Your task to perform on an android device: Open Wikipedia Image 0: 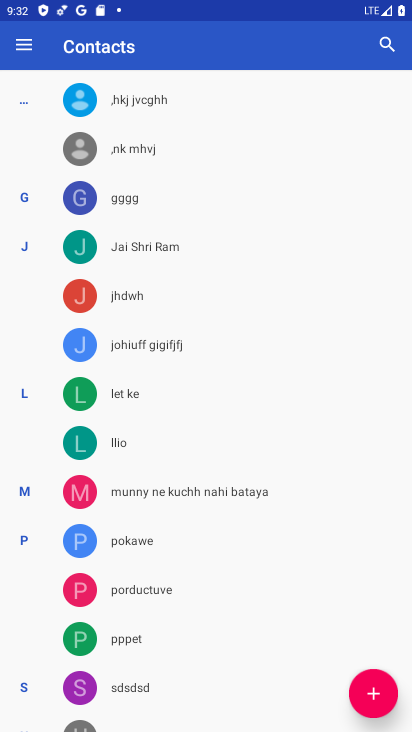
Step 0: press home button
Your task to perform on an android device: Open Wikipedia Image 1: 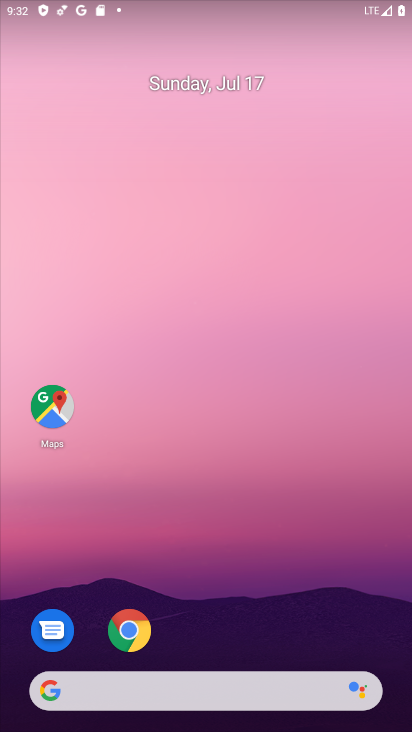
Step 1: click (131, 630)
Your task to perform on an android device: Open Wikipedia Image 2: 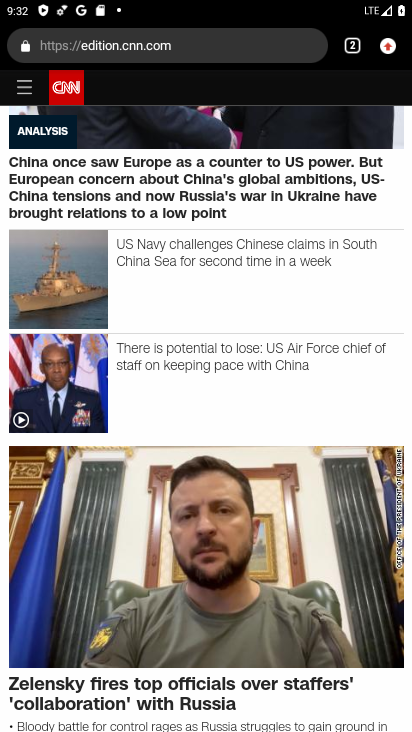
Step 2: click (353, 46)
Your task to perform on an android device: Open Wikipedia Image 3: 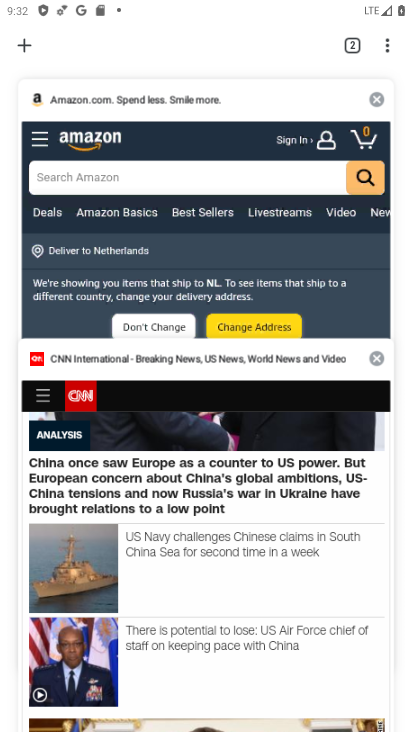
Step 3: click (23, 38)
Your task to perform on an android device: Open Wikipedia Image 4: 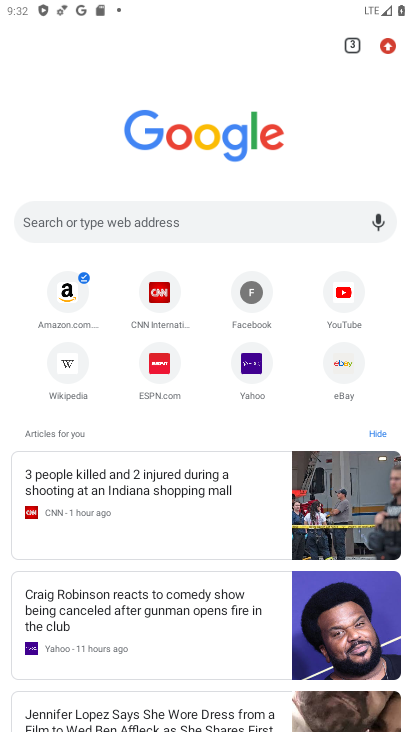
Step 4: click (65, 361)
Your task to perform on an android device: Open Wikipedia Image 5: 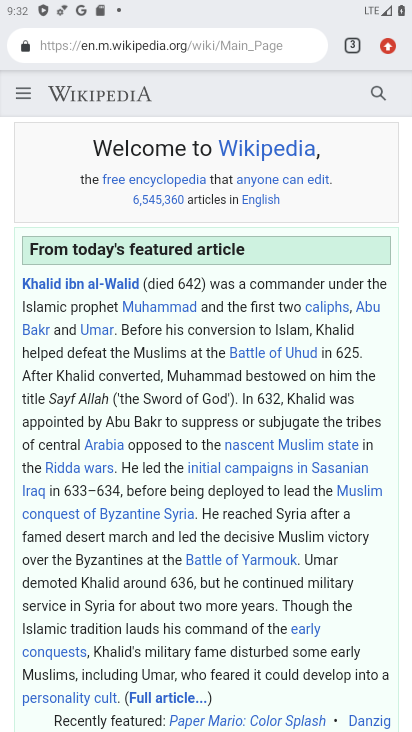
Step 5: task complete